Your task to perform on an android device: Open my contact list Image 0: 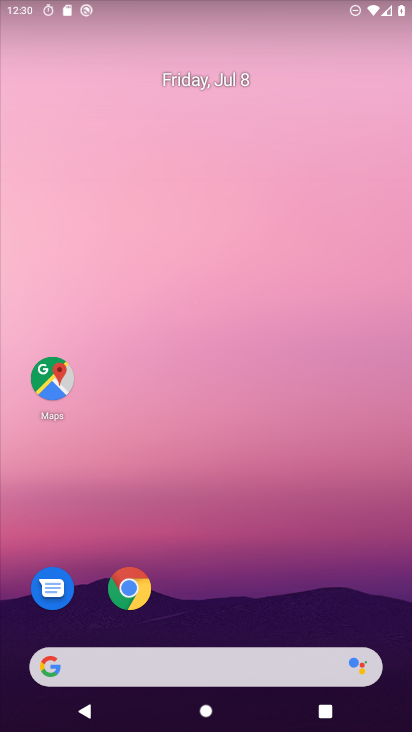
Step 0: drag from (295, 605) to (282, 64)
Your task to perform on an android device: Open my contact list Image 1: 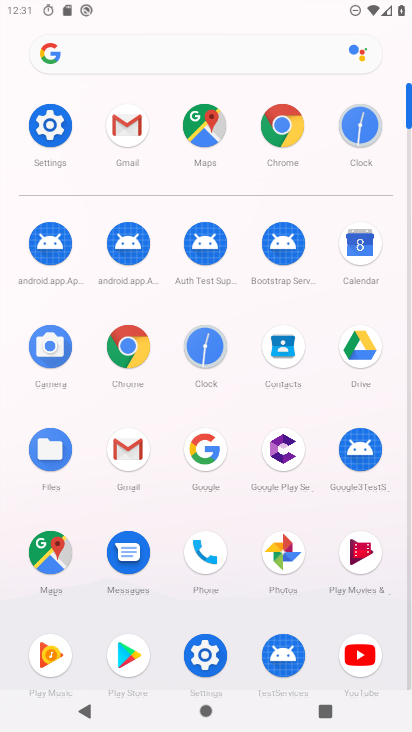
Step 1: click (293, 345)
Your task to perform on an android device: Open my contact list Image 2: 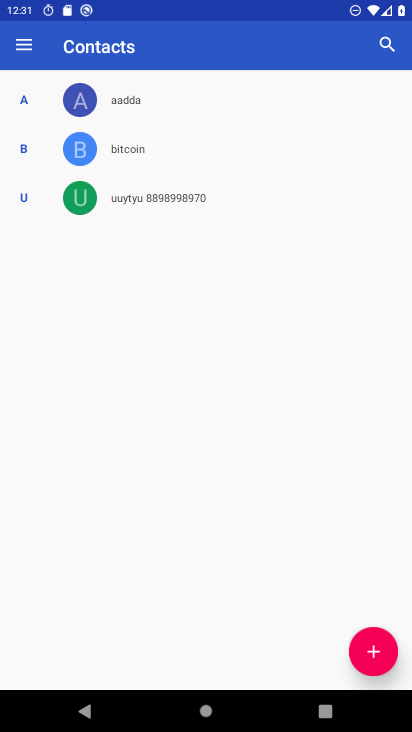
Step 2: task complete